Your task to perform on an android device: open the mobile data screen to see how much data has been used Image 0: 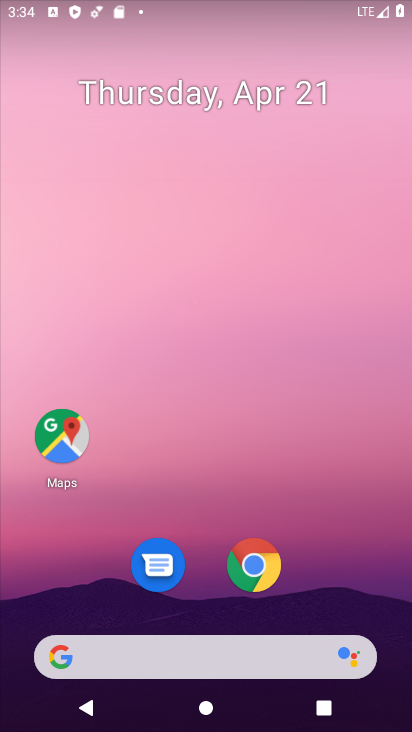
Step 0: drag from (315, 558) to (351, 91)
Your task to perform on an android device: open the mobile data screen to see how much data has been used Image 1: 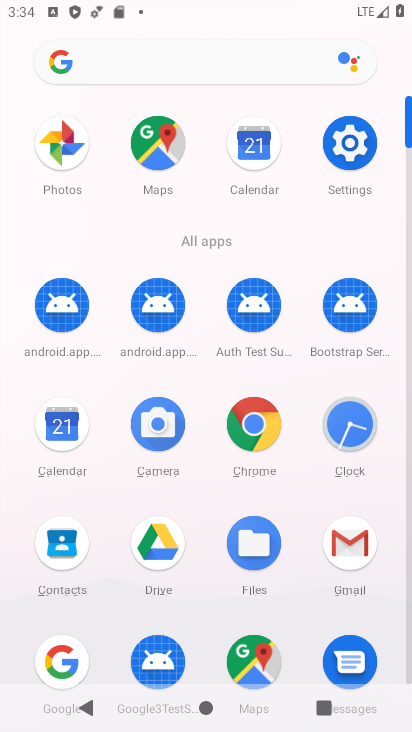
Step 1: click (351, 142)
Your task to perform on an android device: open the mobile data screen to see how much data has been used Image 2: 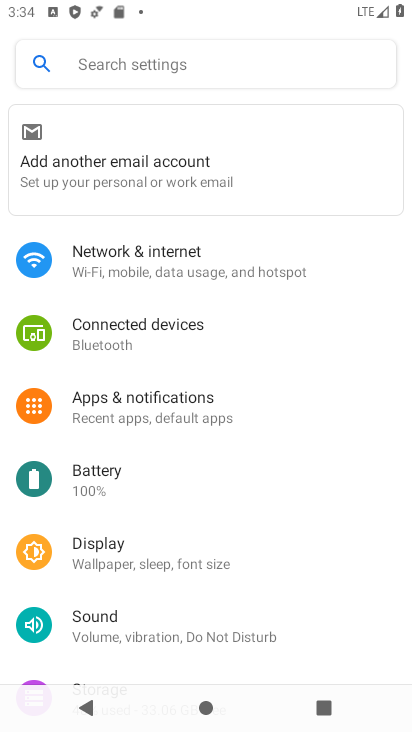
Step 2: click (248, 263)
Your task to perform on an android device: open the mobile data screen to see how much data has been used Image 3: 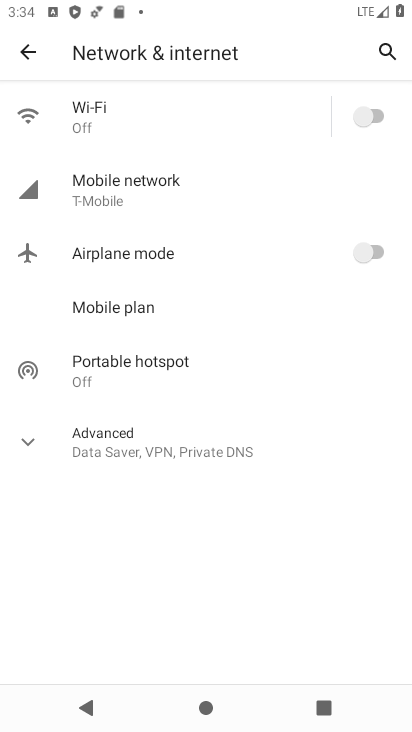
Step 3: click (163, 189)
Your task to perform on an android device: open the mobile data screen to see how much data has been used Image 4: 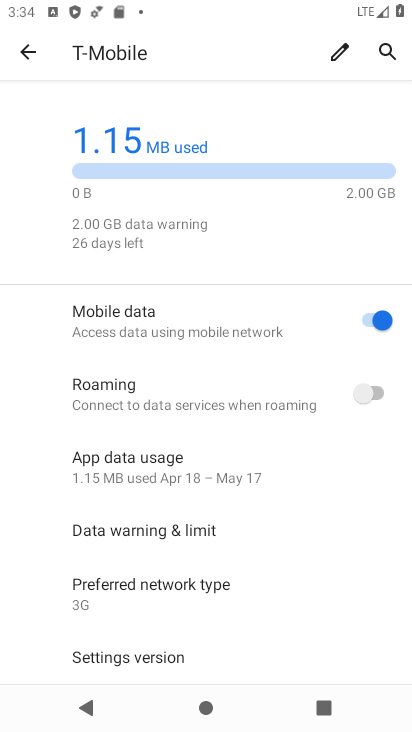
Step 4: task complete